Your task to perform on an android device: Do I have any events today? Image 0: 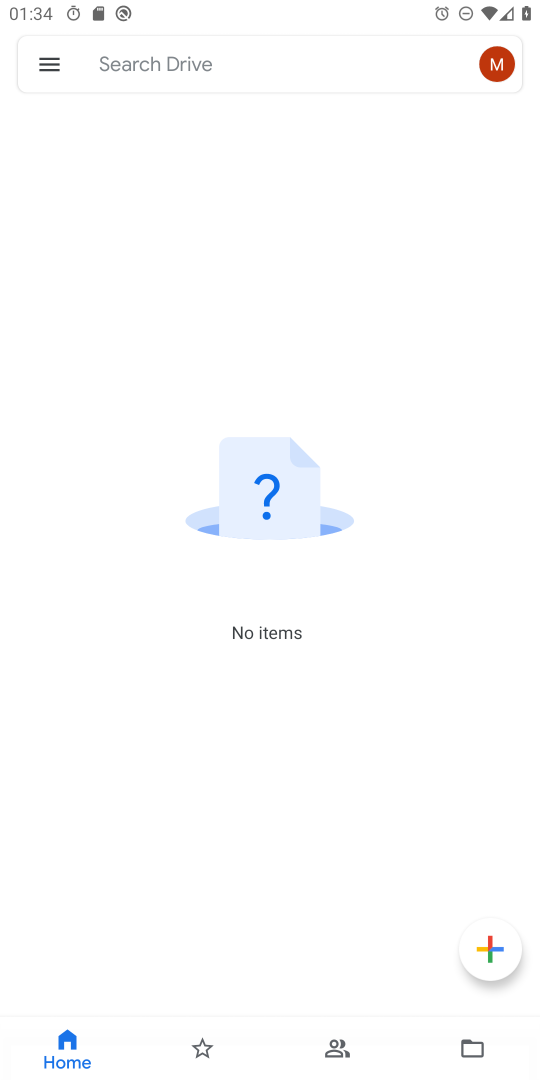
Step 0: drag from (285, 17) to (366, 470)
Your task to perform on an android device: Do I have any events today? Image 1: 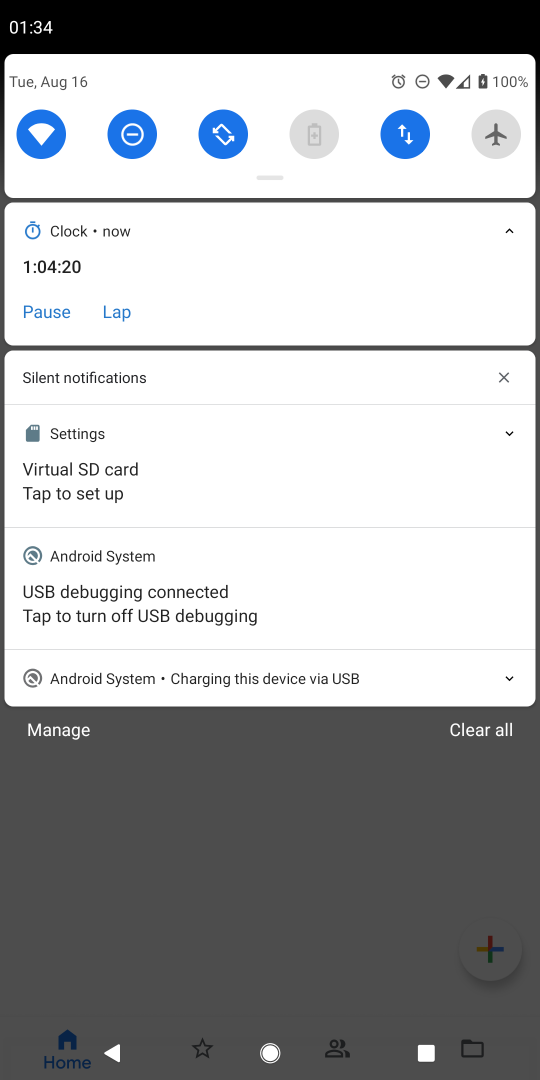
Step 1: press home button
Your task to perform on an android device: Do I have any events today? Image 2: 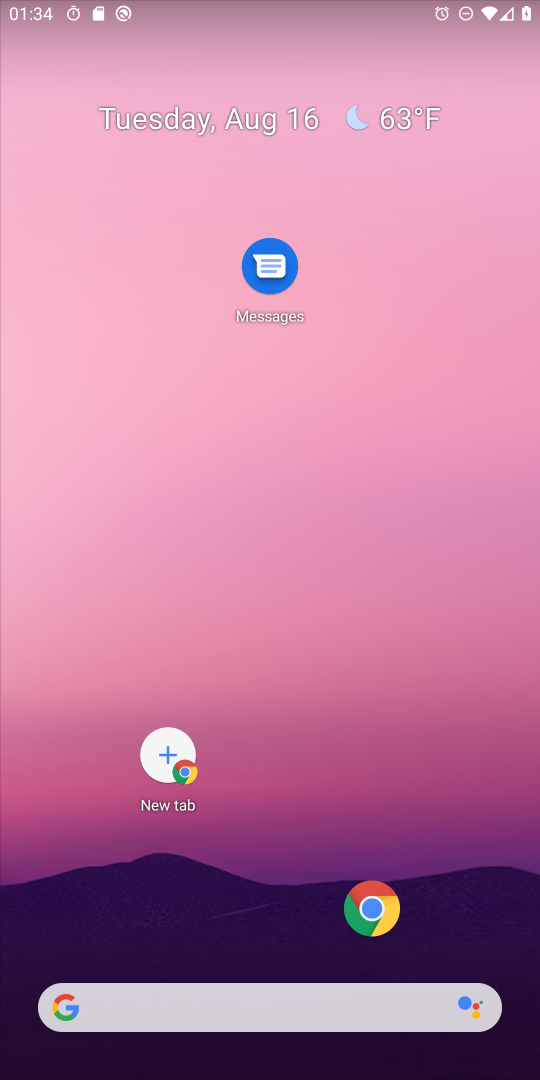
Step 2: click (252, 110)
Your task to perform on an android device: Do I have any events today? Image 3: 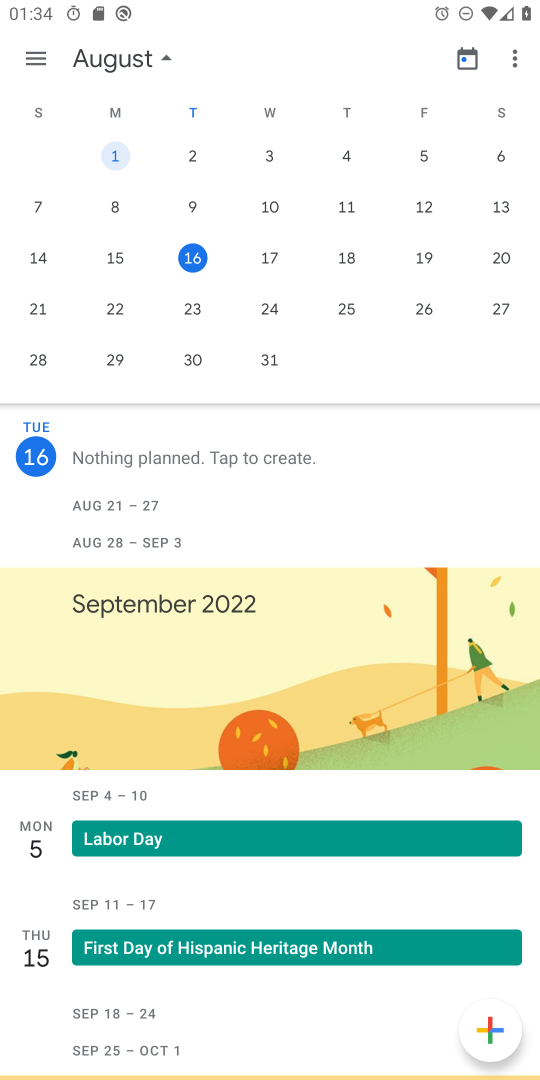
Step 3: click (252, 110)
Your task to perform on an android device: Do I have any events today? Image 4: 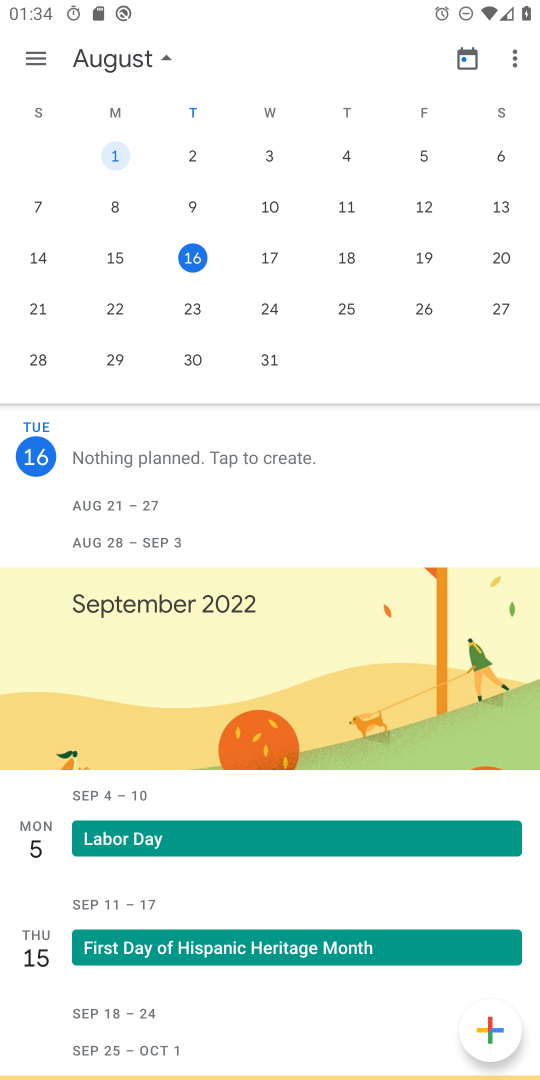
Step 4: task complete